Your task to perform on an android device: Clear the cart on costco.com. Search for "usb-b" on costco.com, select the first entry, add it to the cart, then select checkout. Image 0: 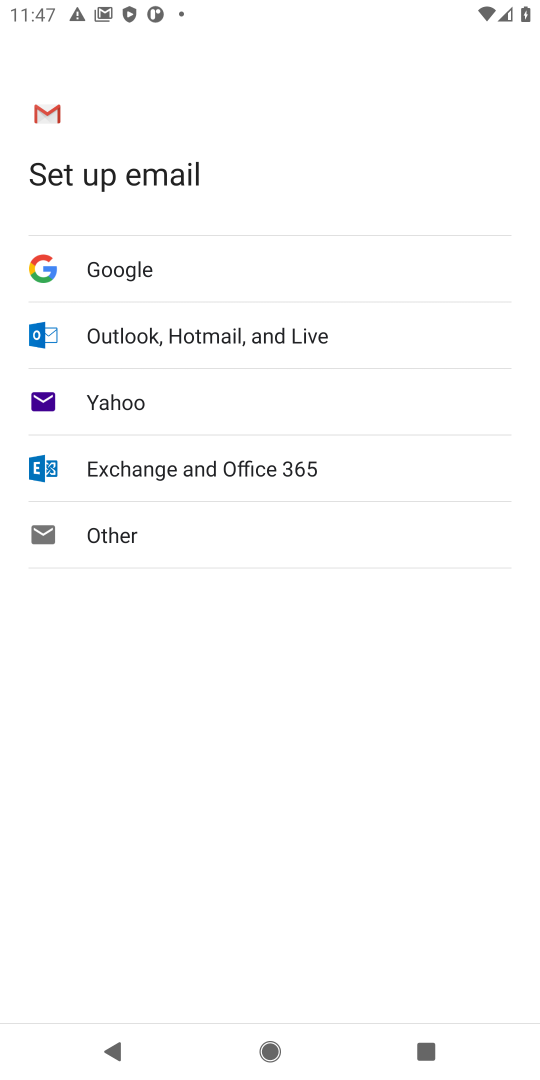
Step 0: press home button
Your task to perform on an android device: Clear the cart on costco.com. Search for "usb-b" on costco.com, select the first entry, add it to the cart, then select checkout. Image 1: 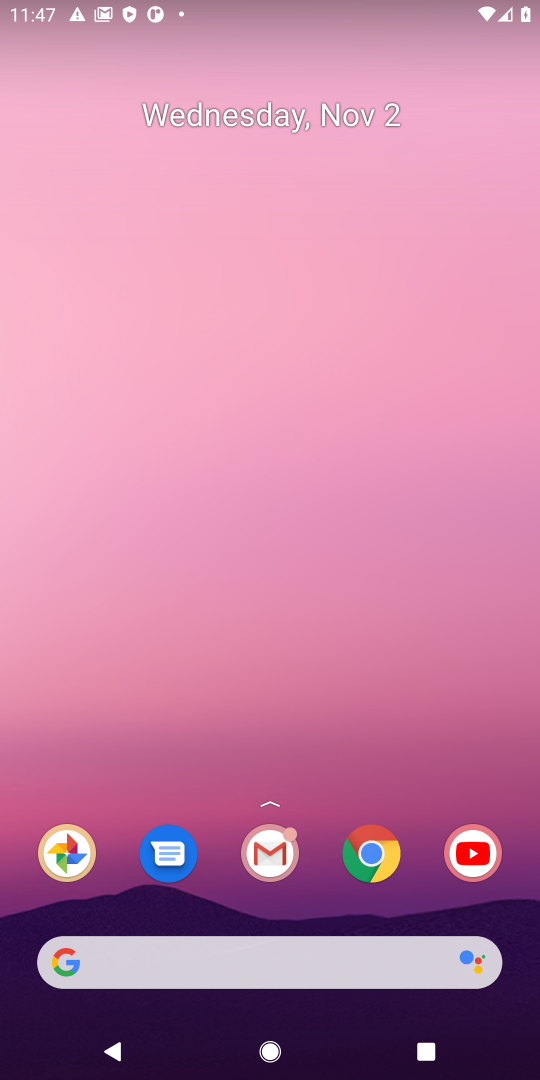
Step 1: click (377, 856)
Your task to perform on an android device: Clear the cart on costco.com. Search for "usb-b" on costco.com, select the first entry, add it to the cart, then select checkout. Image 2: 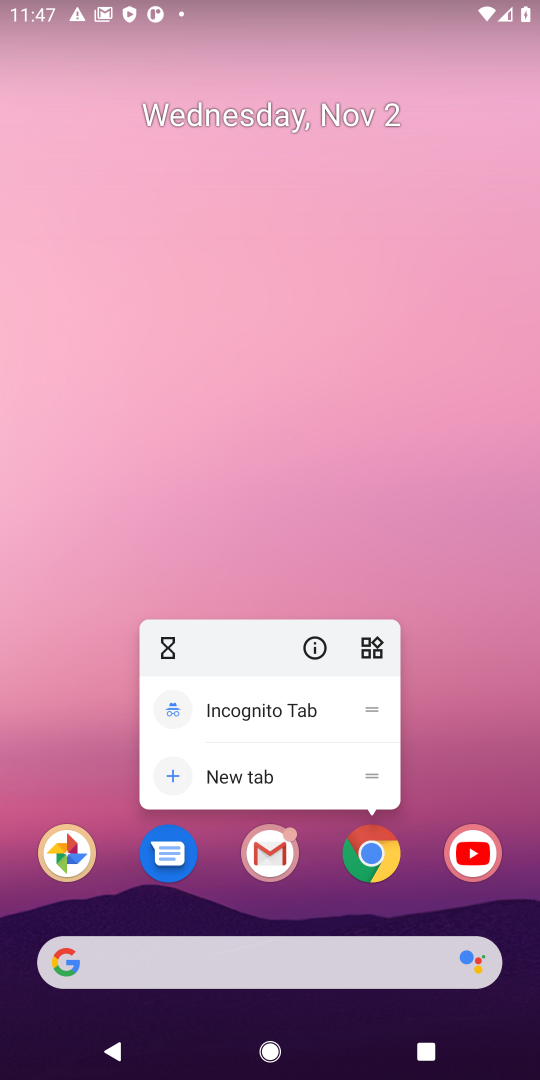
Step 2: click (357, 854)
Your task to perform on an android device: Clear the cart on costco.com. Search for "usb-b" on costco.com, select the first entry, add it to the cart, then select checkout. Image 3: 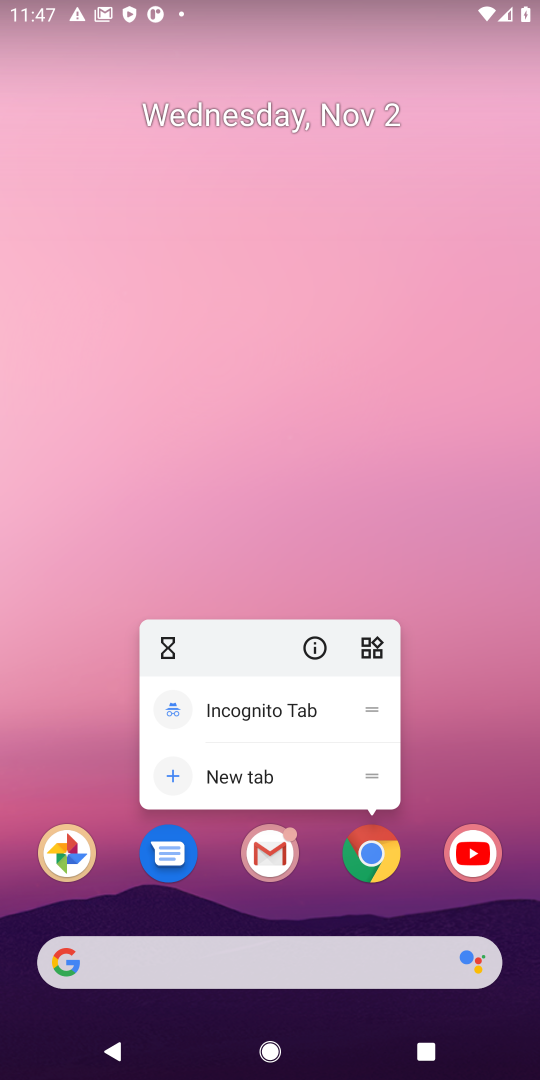
Step 3: click (365, 857)
Your task to perform on an android device: Clear the cart on costco.com. Search for "usb-b" on costco.com, select the first entry, add it to the cart, then select checkout. Image 4: 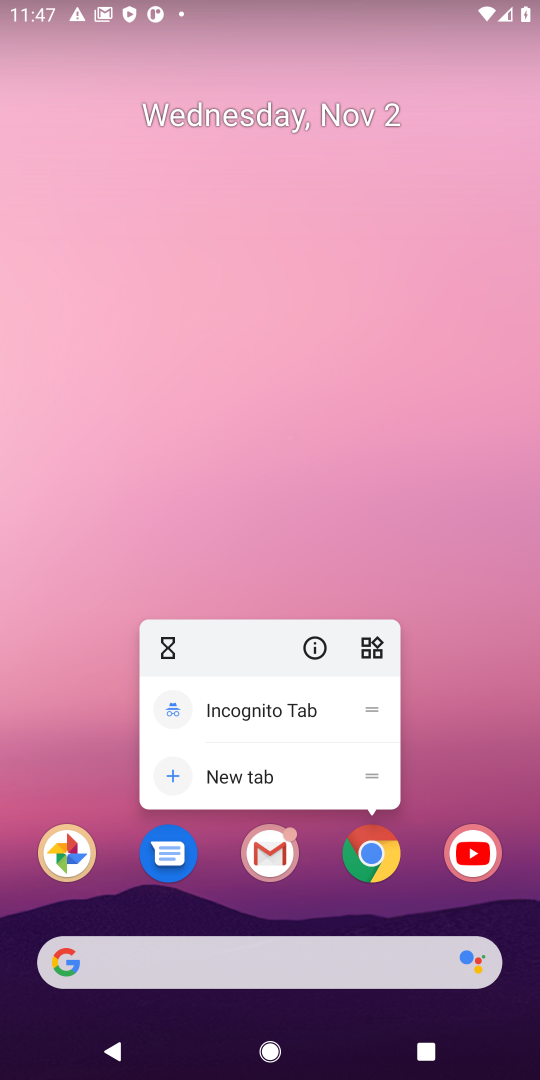
Step 4: click (367, 853)
Your task to perform on an android device: Clear the cart on costco.com. Search for "usb-b" on costco.com, select the first entry, add it to the cart, then select checkout. Image 5: 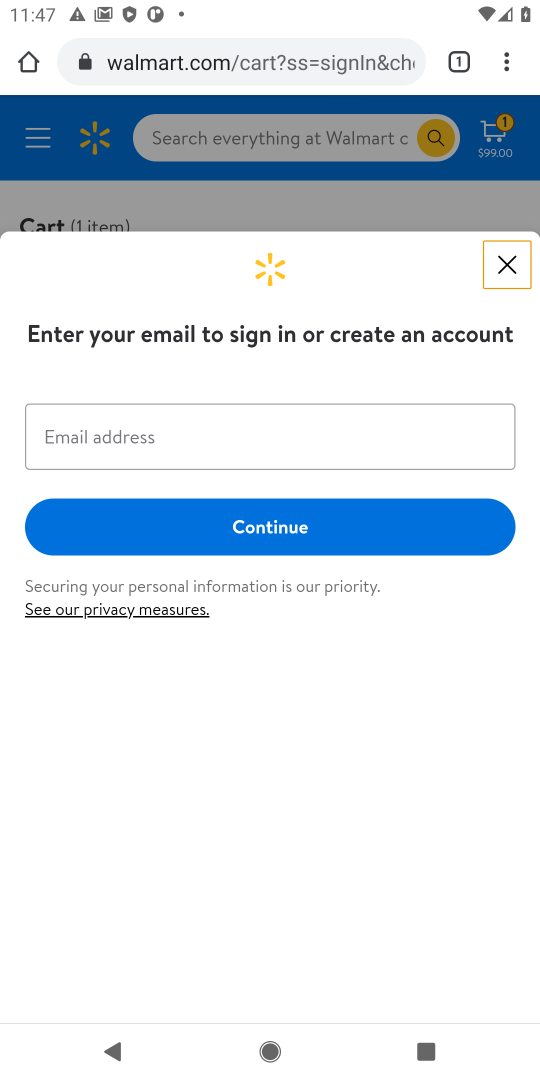
Step 5: click (316, 59)
Your task to perform on an android device: Clear the cart on costco.com. Search for "usb-b" on costco.com, select the first entry, add it to the cart, then select checkout. Image 6: 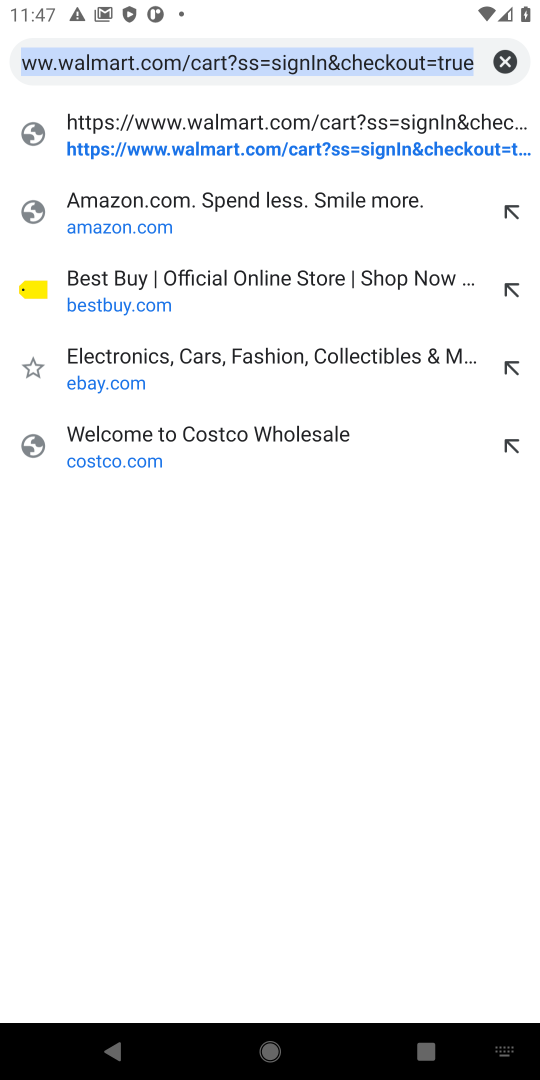
Step 6: click (503, 62)
Your task to perform on an android device: Clear the cart on costco.com. Search for "usb-b" on costco.com, select the first entry, add it to the cart, then select checkout. Image 7: 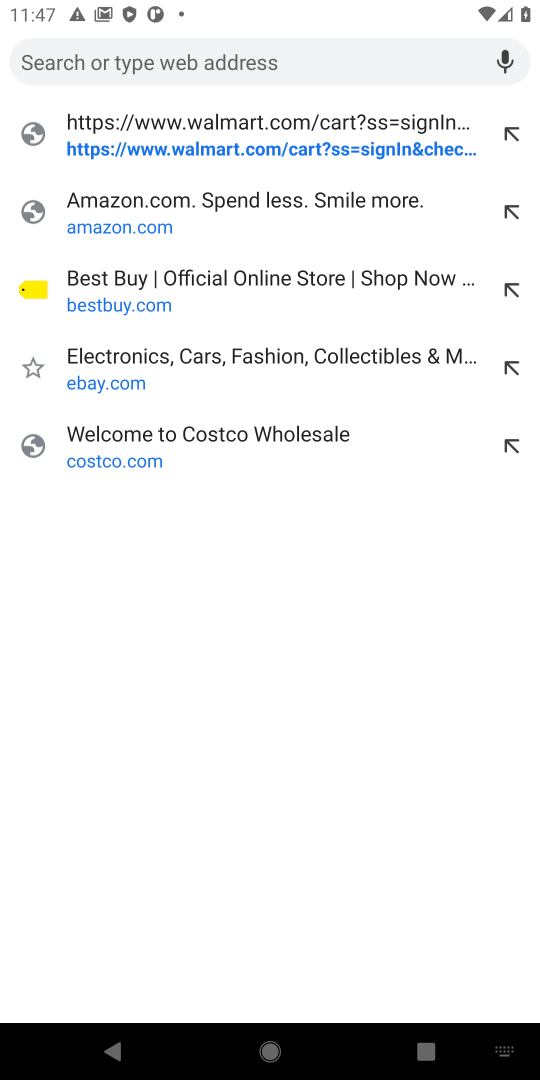
Step 7: click (85, 455)
Your task to perform on an android device: Clear the cart on costco.com. Search for "usb-b" on costco.com, select the first entry, add it to the cart, then select checkout. Image 8: 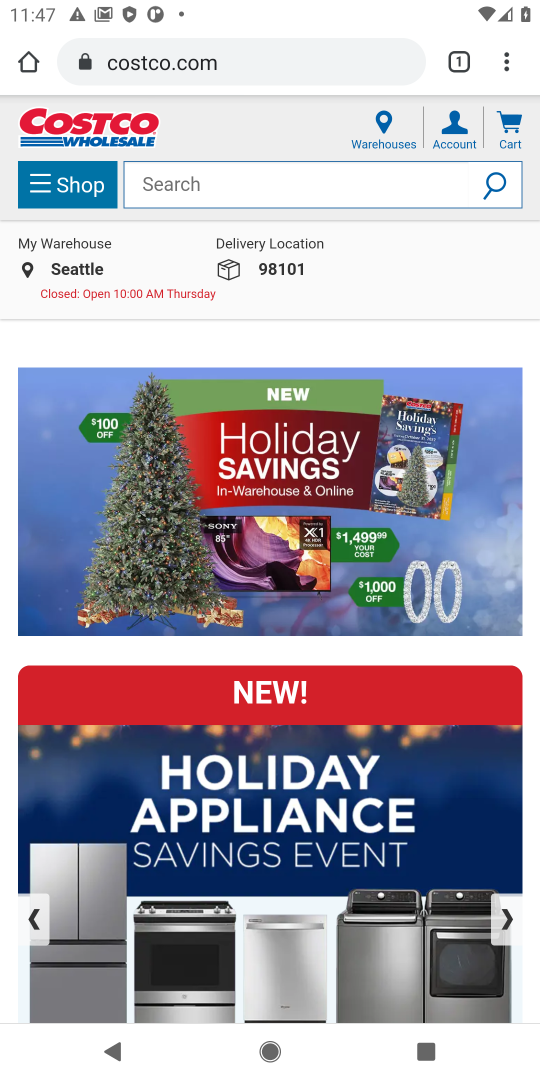
Step 8: click (199, 180)
Your task to perform on an android device: Clear the cart on costco.com. Search for "usb-b" on costco.com, select the first entry, add it to the cart, then select checkout. Image 9: 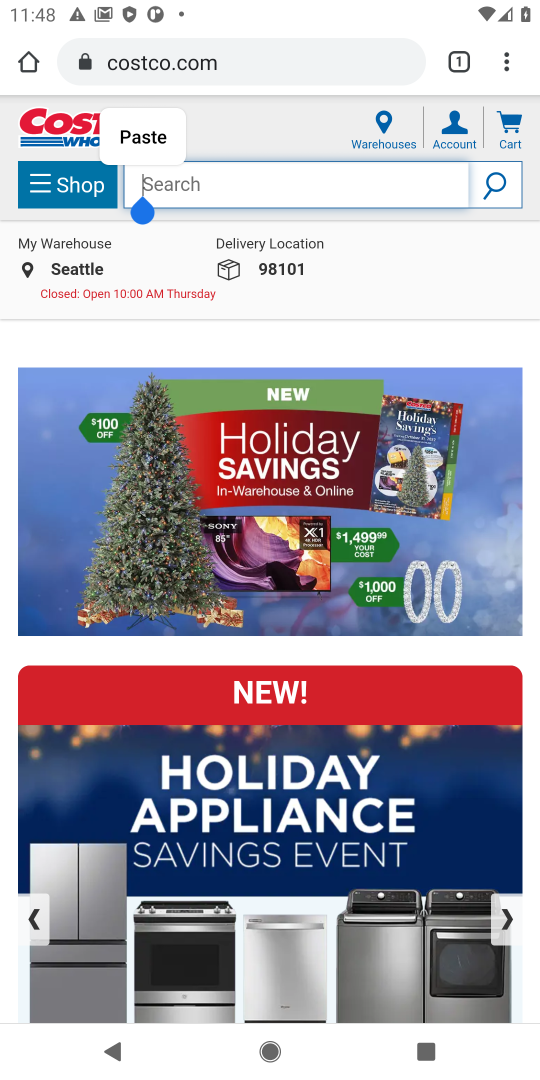
Step 9: type "usb-b"
Your task to perform on an android device: Clear the cart on costco.com. Search for "usb-b" on costco.com, select the first entry, add it to the cart, then select checkout. Image 10: 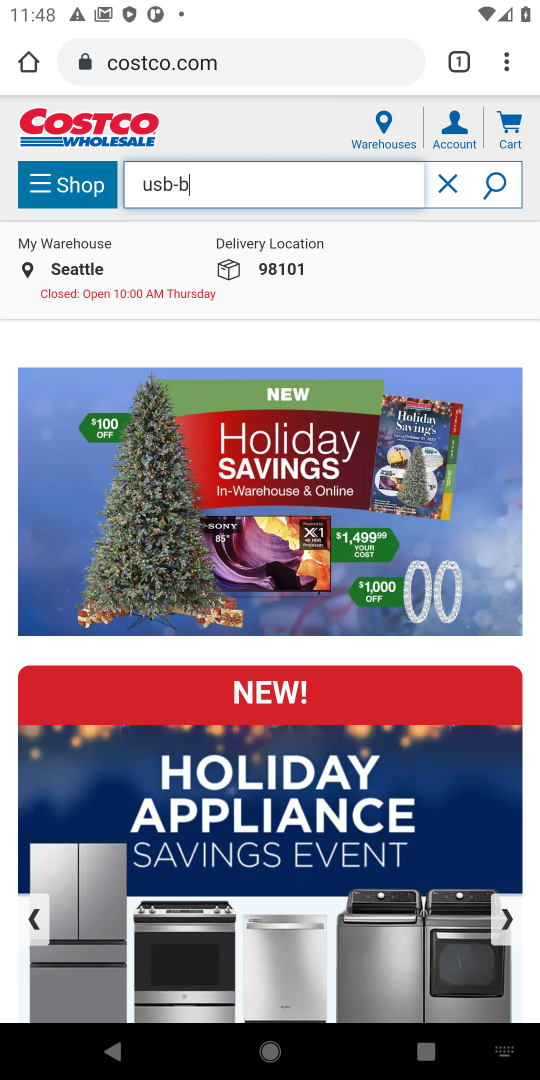
Step 10: press enter
Your task to perform on an android device: Clear the cart on costco.com. Search for "usb-b" on costco.com, select the first entry, add it to the cart, then select checkout. Image 11: 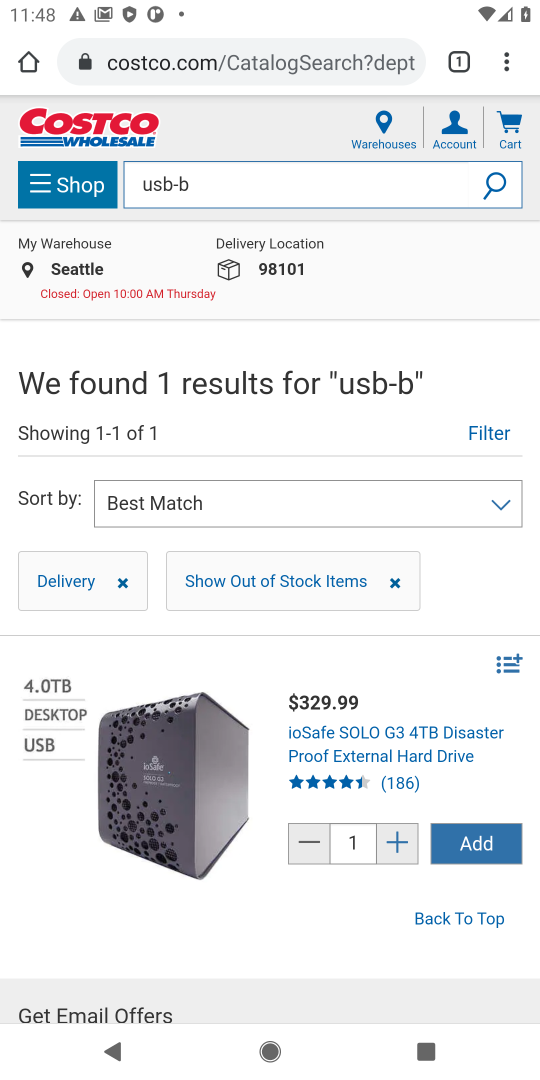
Step 11: task complete